Your task to perform on an android device: toggle data saver in the chrome app Image 0: 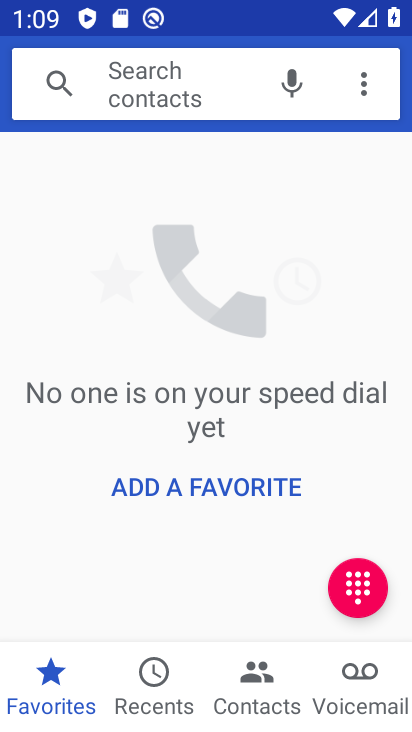
Step 0: press back button
Your task to perform on an android device: toggle data saver in the chrome app Image 1: 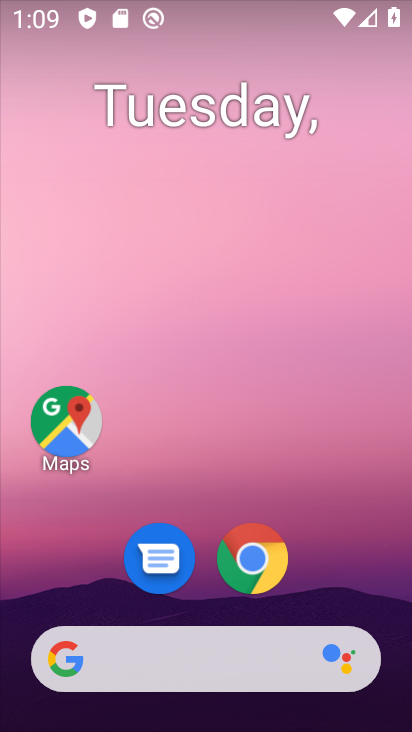
Step 1: click (266, 561)
Your task to perform on an android device: toggle data saver in the chrome app Image 2: 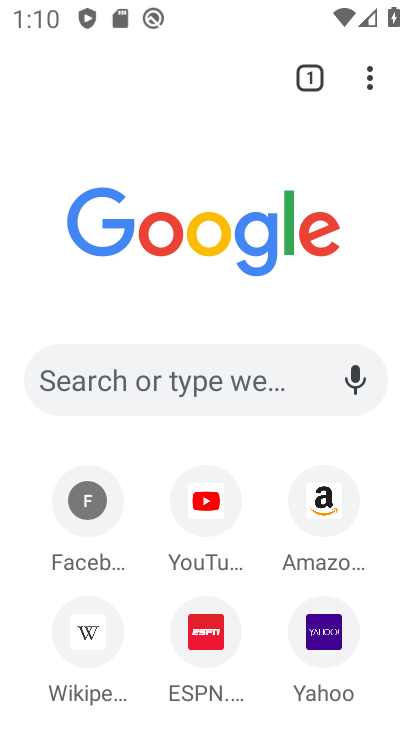
Step 2: click (371, 67)
Your task to perform on an android device: toggle data saver in the chrome app Image 3: 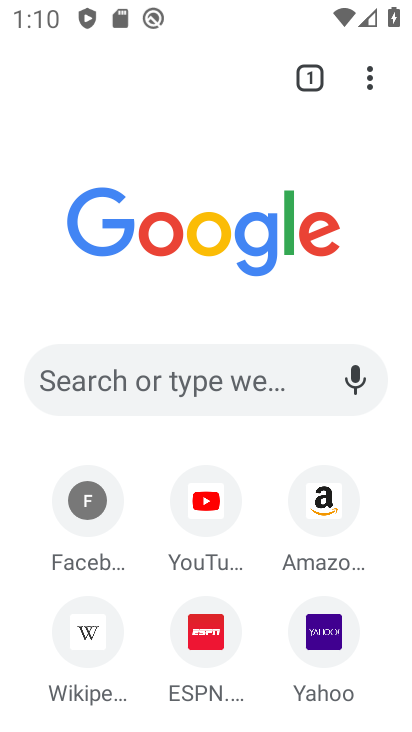
Step 3: click (367, 75)
Your task to perform on an android device: toggle data saver in the chrome app Image 4: 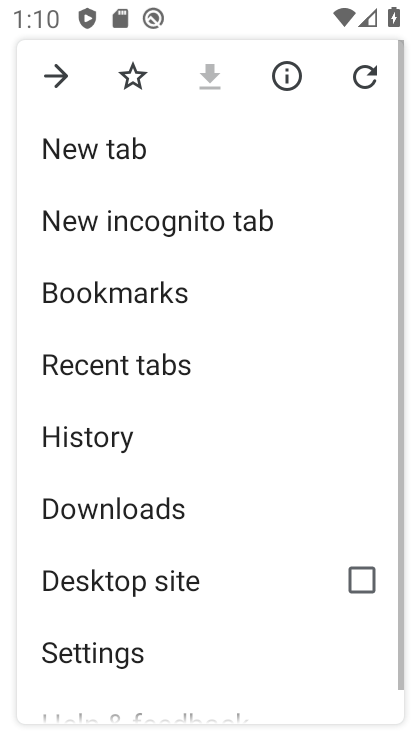
Step 4: drag from (367, 75) to (89, 654)
Your task to perform on an android device: toggle data saver in the chrome app Image 5: 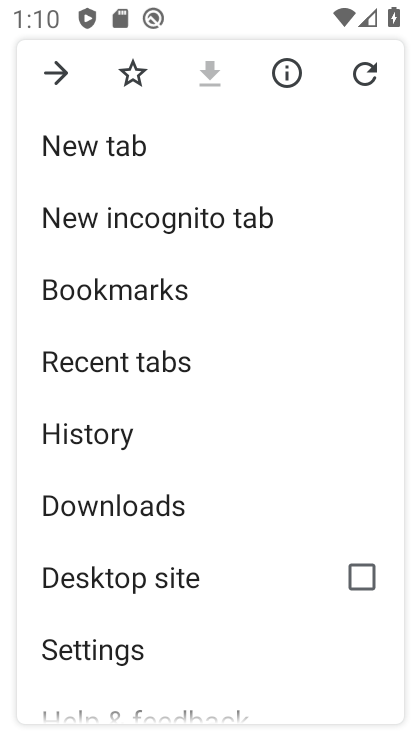
Step 5: drag from (157, 606) to (315, 65)
Your task to perform on an android device: toggle data saver in the chrome app Image 6: 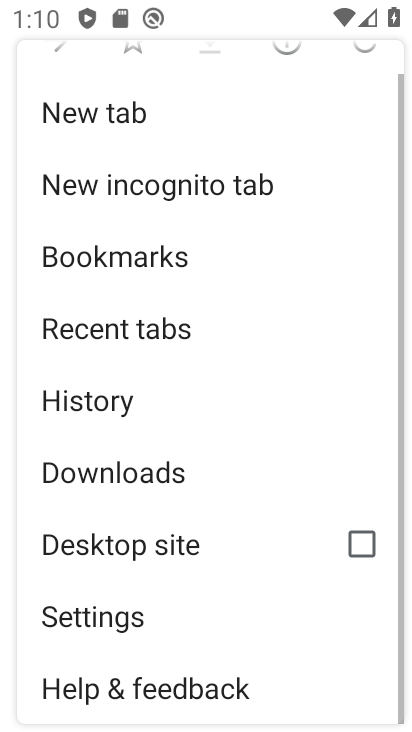
Step 6: click (68, 617)
Your task to perform on an android device: toggle data saver in the chrome app Image 7: 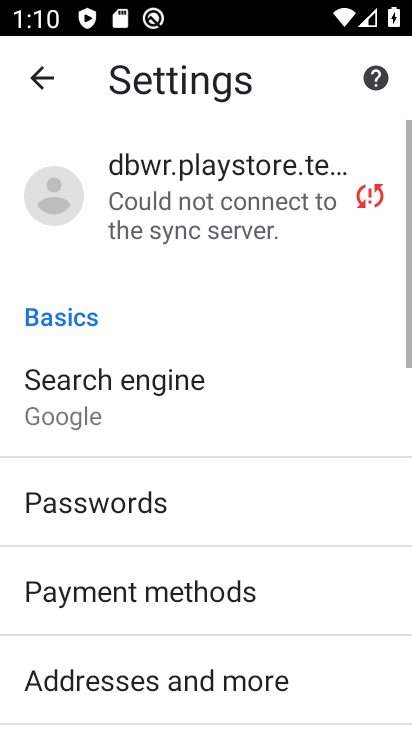
Step 7: drag from (157, 643) to (356, 69)
Your task to perform on an android device: toggle data saver in the chrome app Image 8: 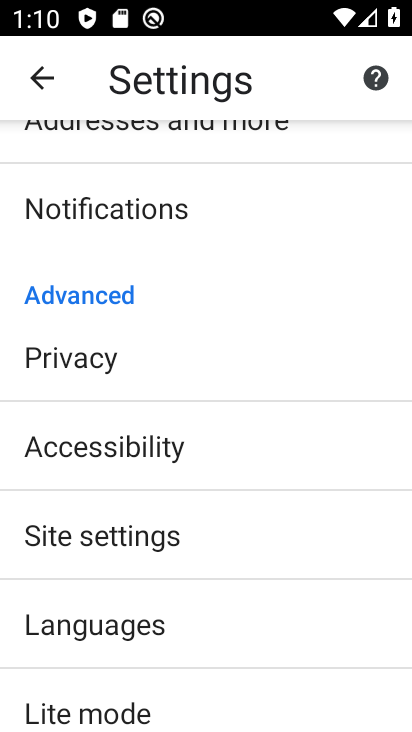
Step 8: drag from (171, 646) to (238, 157)
Your task to perform on an android device: toggle data saver in the chrome app Image 9: 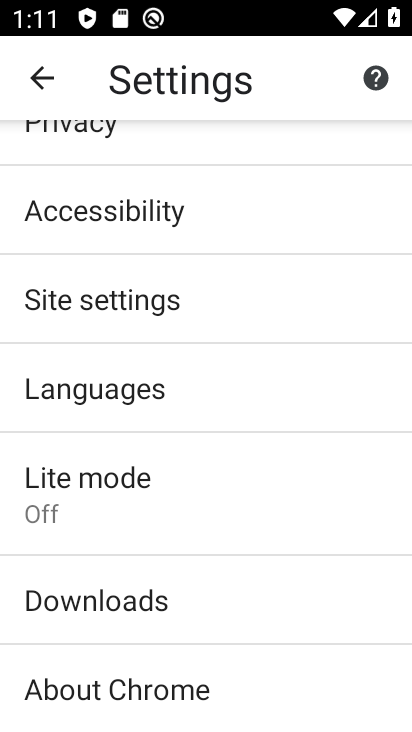
Step 9: click (87, 491)
Your task to perform on an android device: toggle data saver in the chrome app Image 10: 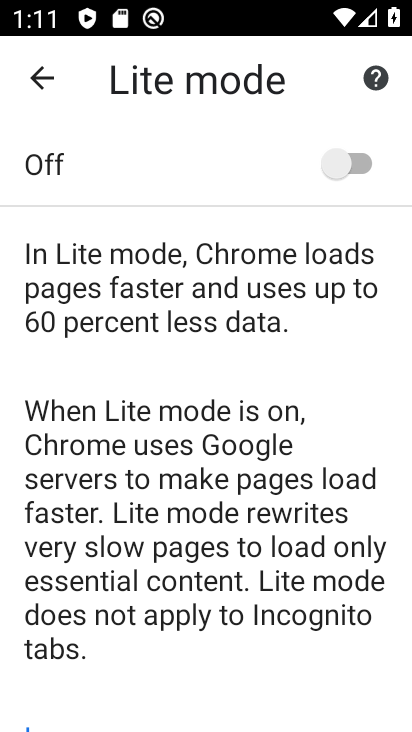
Step 10: click (344, 164)
Your task to perform on an android device: toggle data saver in the chrome app Image 11: 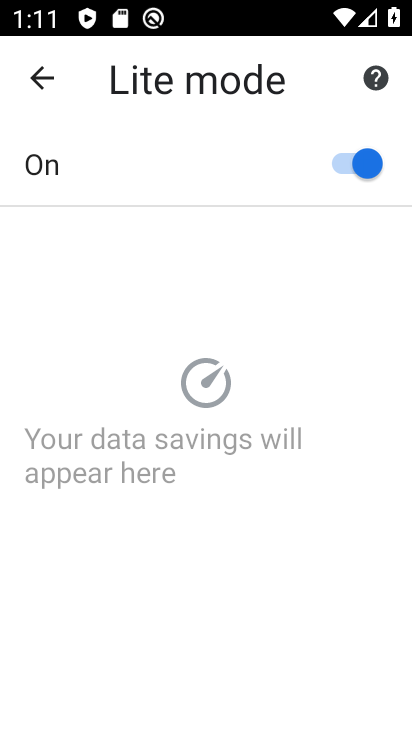
Step 11: task complete